Your task to perform on an android device: Open accessibility settings Image 0: 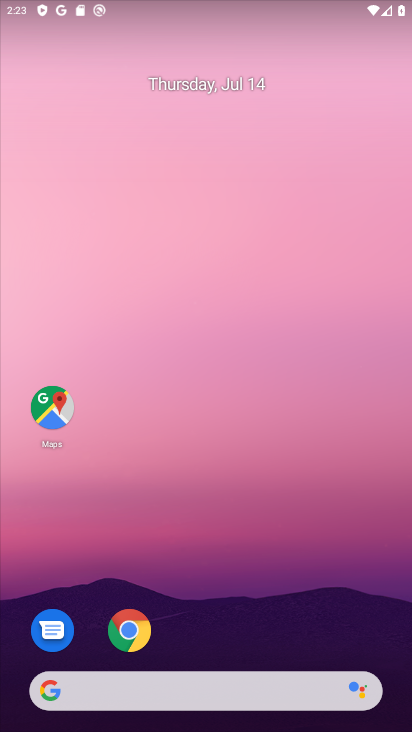
Step 0: drag from (235, 662) to (303, 166)
Your task to perform on an android device: Open accessibility settings Image 1: 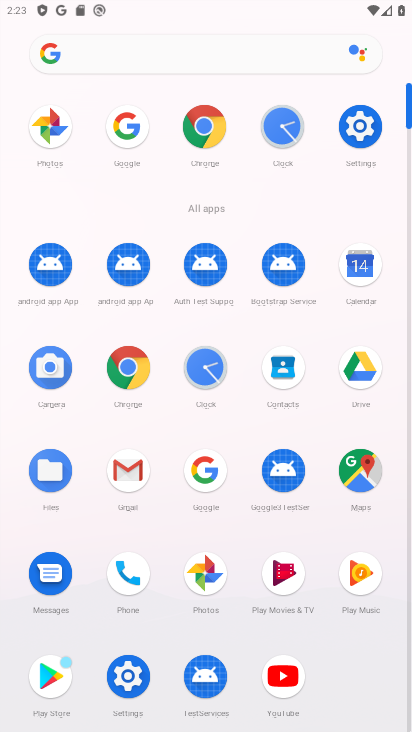
Step 1: drag from (200, 583) to (257, 392)
Your task to perform on an android device: Open accessibility settings Image 2: 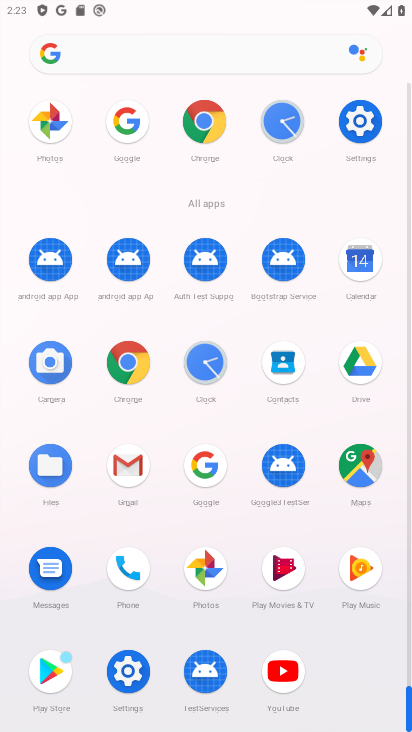
Step 2: click (137, 673)
Your task to perform on an android device: Open accessibility settings Image 3: 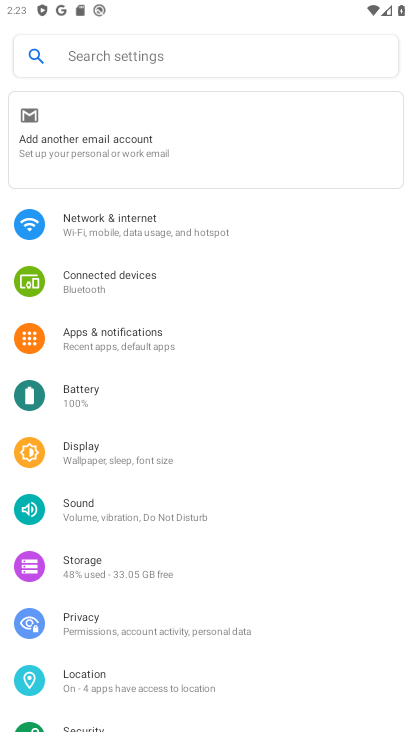
Step 3: drag from (196, 718) to (321, 207)
Your task to perform on an android device: Open accessibility settings Image 4: 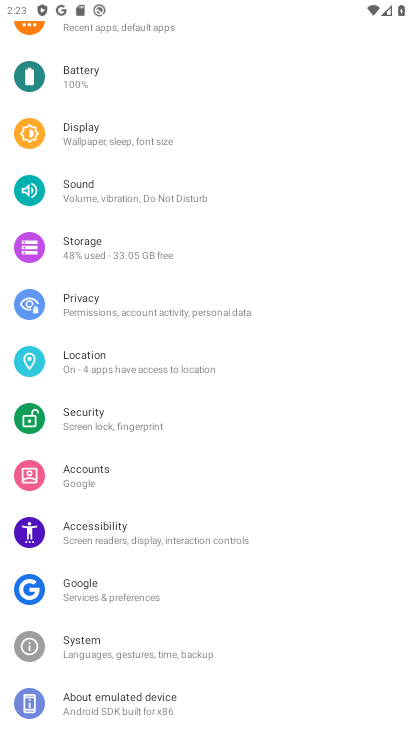
Step 4: click (157, 543)
Your task to perform on an android device: Open accessibility settings Image 5: 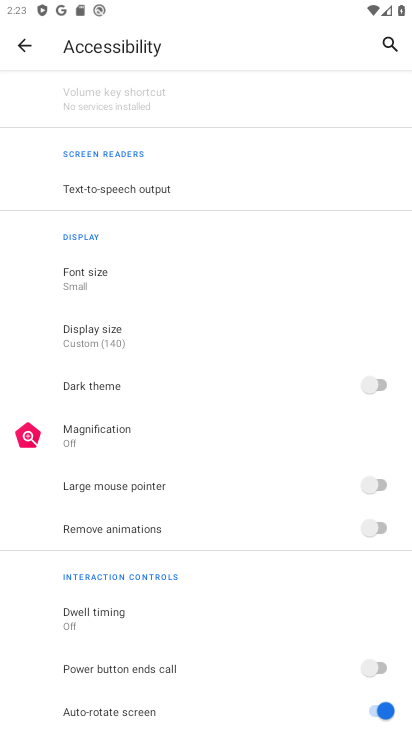
Step 5: task complete